Your task to perform on an android device: turn off improve location accuracy Image 0: 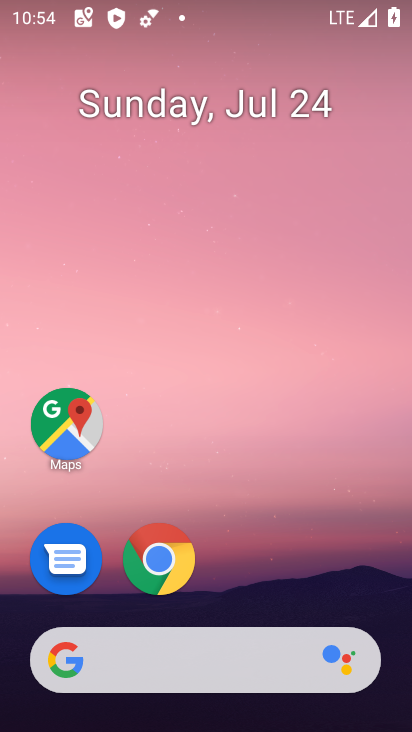
Step 0: drag from (291, 597) to (266, 11)
Your task to perform on an android device: turn off improve location accuracy Image 1: 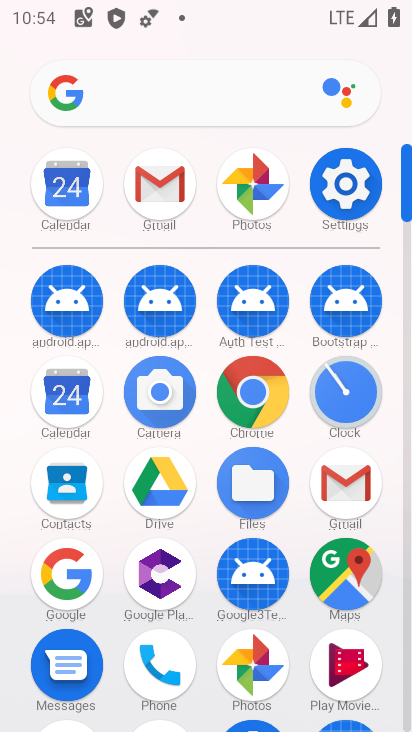
Step 1: click (348, 177)
Your task to perform on an android device: turn off improve location accuracy Image 2: 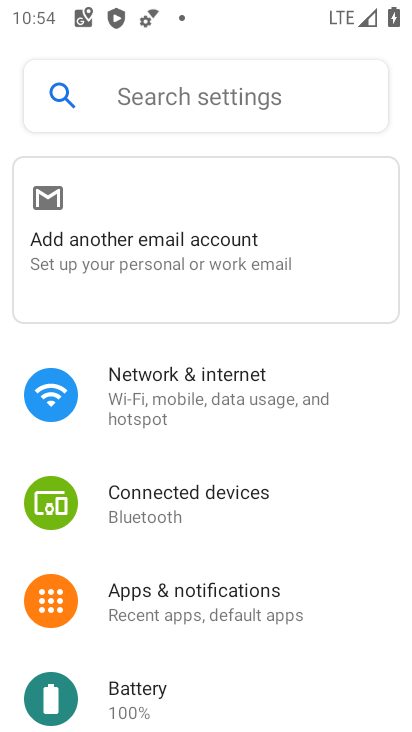
Step 2: drag from (178, 671) to (329, 92)
Your task to perform on an android device: turn off improve location accuracy Image 3: 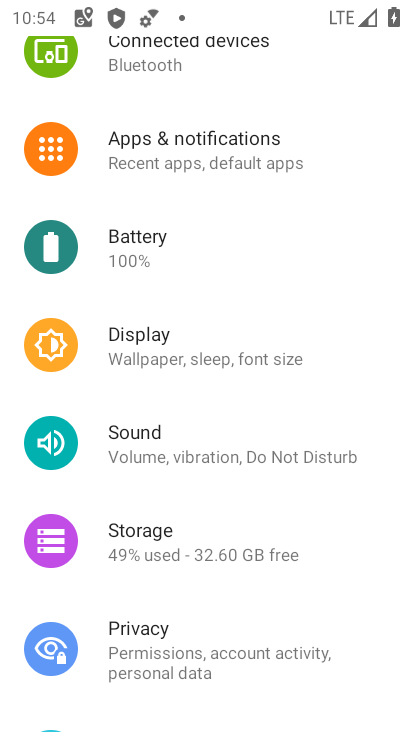
Step 3: drag from (166, 650) to (243, 180)
Your task to perform on an android device: turn off improve location accuracy Image 4: 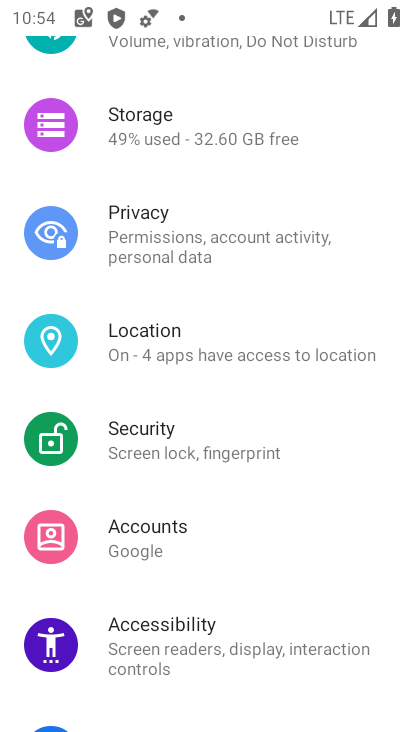
Step 4: click (179, 349)
Your task to perform on an android device: turn off improve location accuracy Image 5: 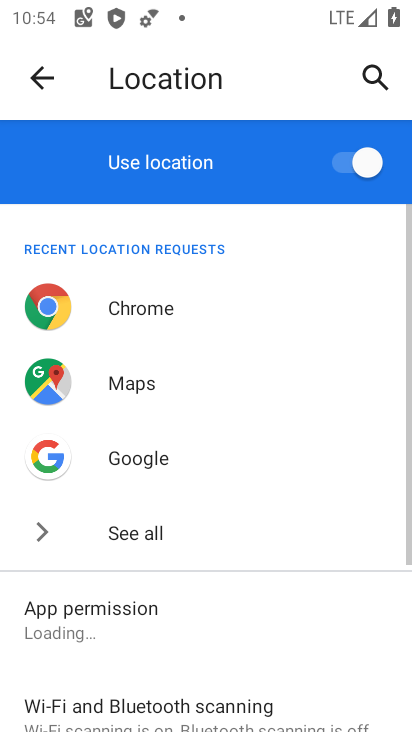
Step 5: drag from (187, 711) to (259, 223)
Your task to perform on an android device: turn off improve location accuracy Image 6: 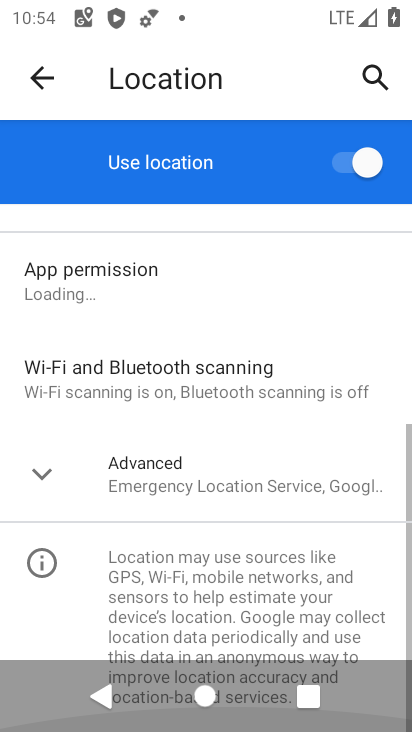
Step 6: click (144, 478)
Your task to perform on an android device: turn off improve location accuracy Image 7: 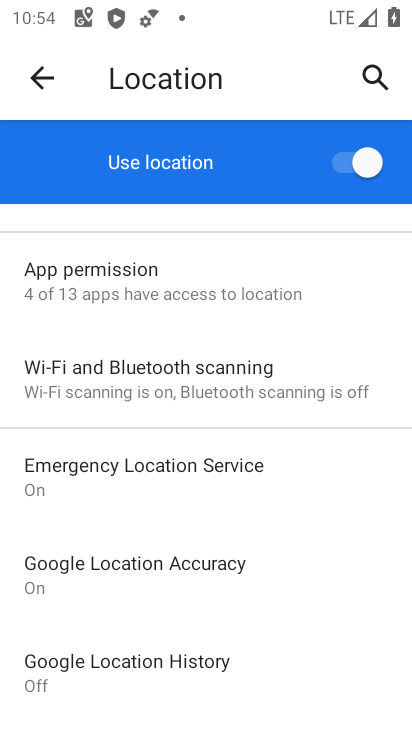
Step 7: click (127, 569)
Your task to perform on an android device: turn off improve location accuracy Image 8: 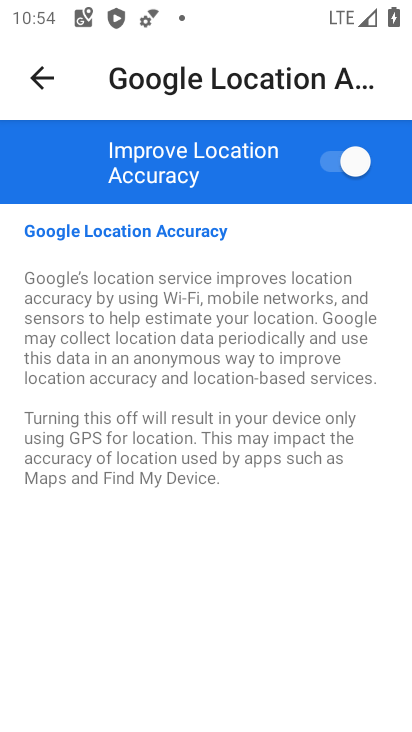
Step 8: click (361, 155)
Your task to perform on an android device: turn off improve location accuracy Image 9: 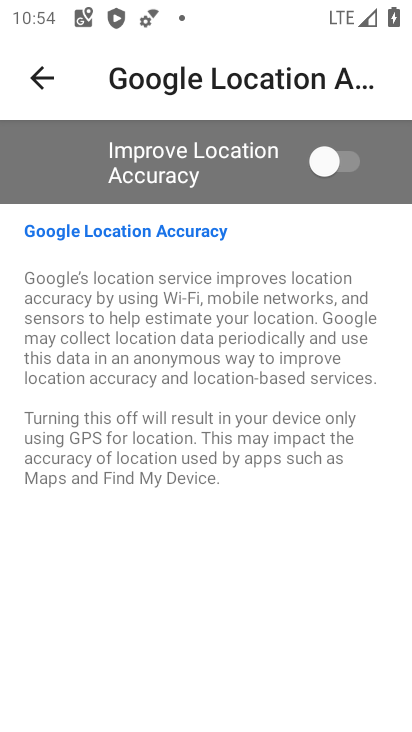
Step 9: task complete